Your task to perform on an android device: Do I have any events today? Image 0: 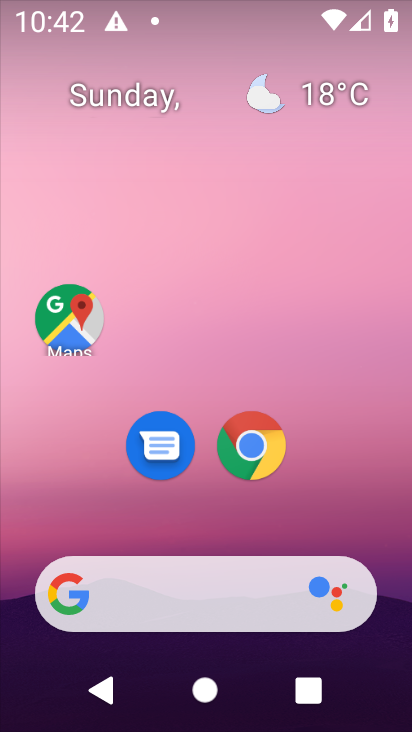
Step 0: drag from (181, 592) to (244, 3)
Your task to perform on an android device: Do I have any events today? Image 1: 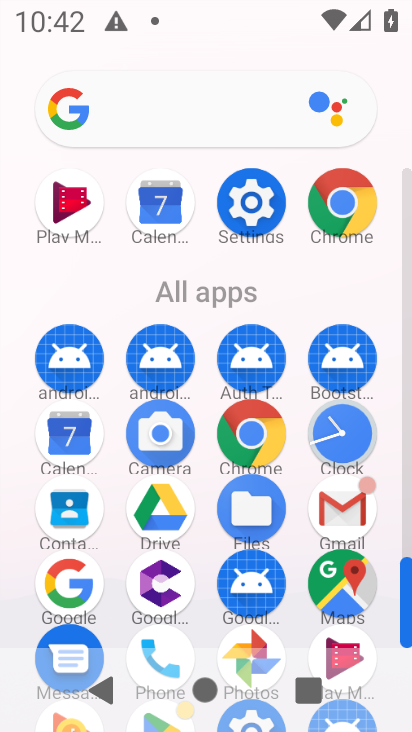
Step 1: click (64, 442)
Your task to perform on an android device: Do I have any events today? Image 2: 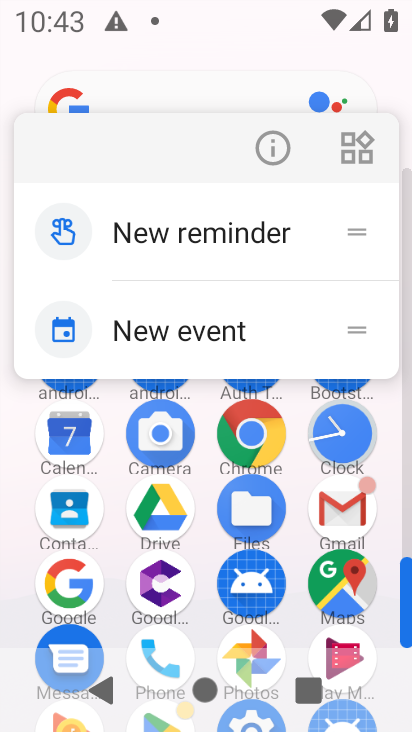
Step 2: click (68, 436)
Your task to perform on an android device: Do I have any events today? Image 3: 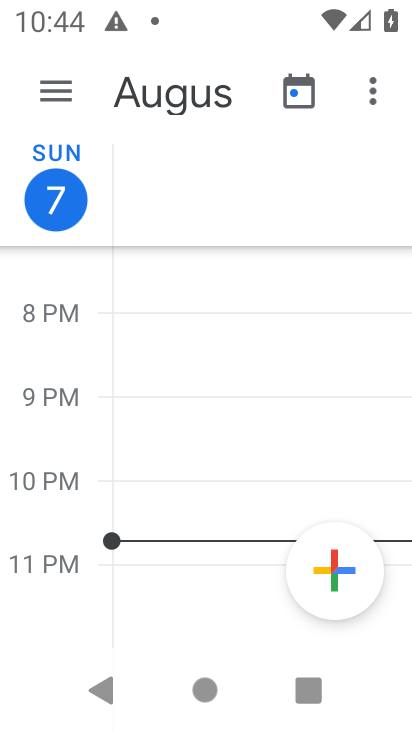
Step 3: click (50, 101)
Your task to perform on an android device: Do I have any events today? Image 4: 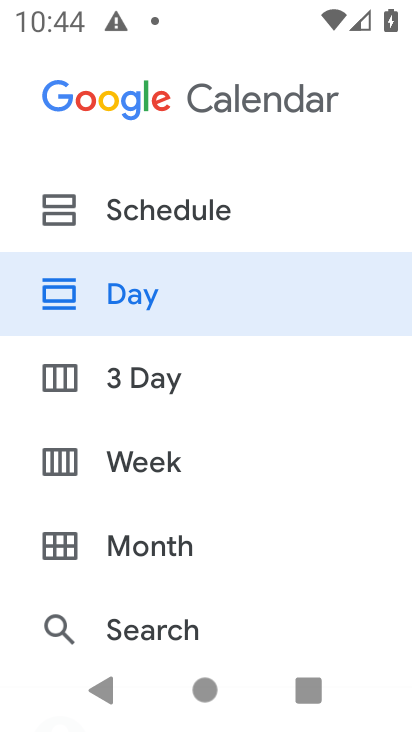
Step 4: click (183, 213)
Your task to perform on an android device: Do I have any events today? Image 5: 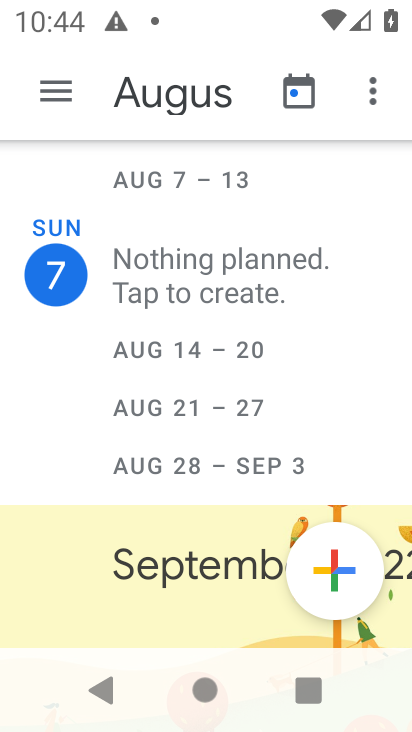
Step 5: task complete